Your task to perform on an android device: Go to Wikipedia Image 0: 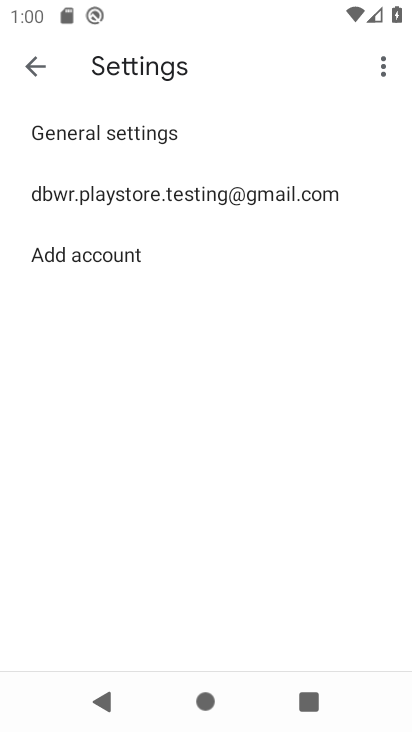
Step 0: press home button
Your task to perform on an android device: Go to Wikipedia Image 1: 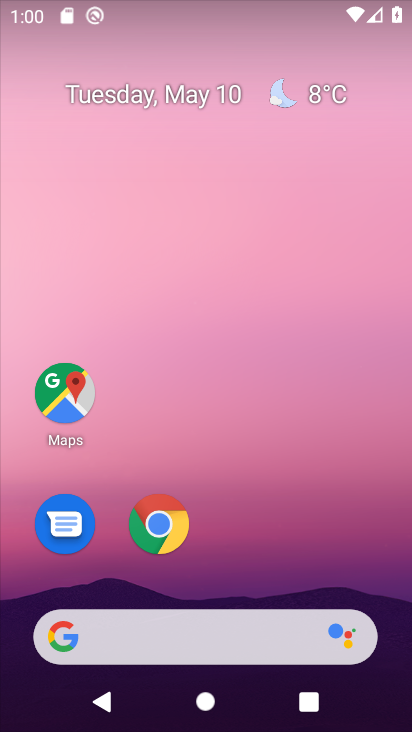
Step 1: click (163, 520)
Your task to perform on an android device: Go to Wikipedia Image 2: 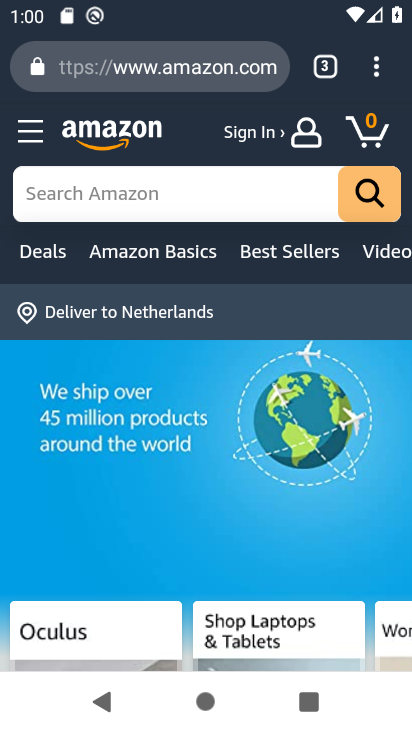
Step 2: click (378, 71)
Your task to perform on an android device: Go to Wikipedia Image 3: 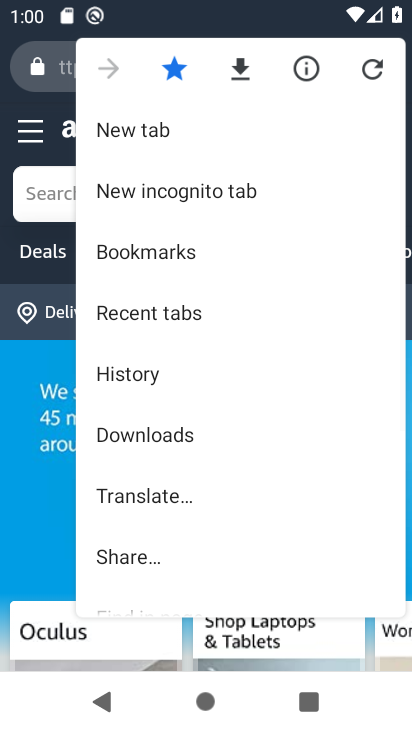
Step 3: click (269, 125)
Your task to perform on an android device: Go to Wikipedia Image 4: 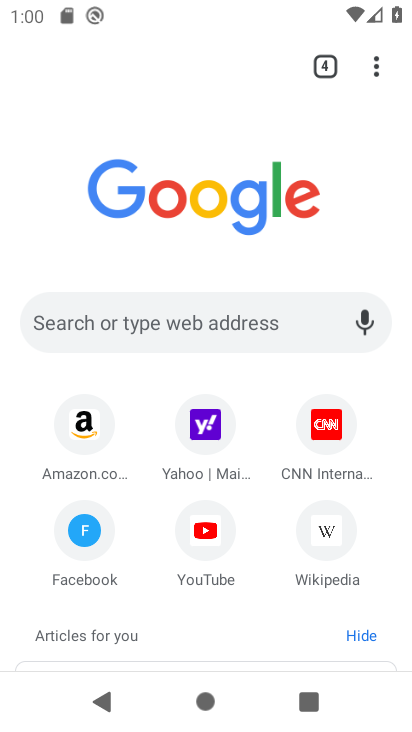
Step 4: click (320, 527)
Your task to perform on an android device: Go to Wikipedia Image 5: 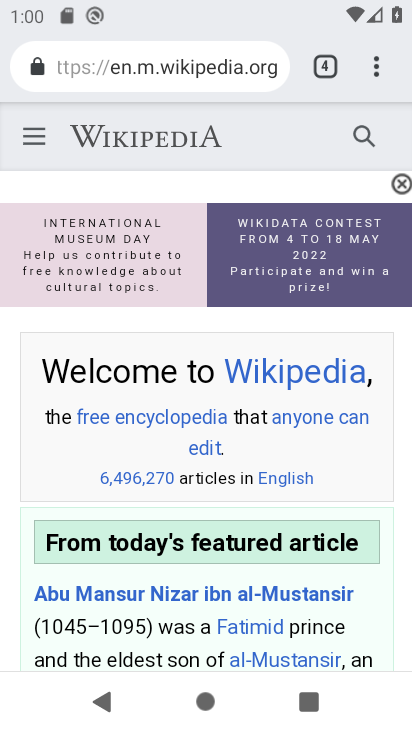
Step 5: task complete